Your task to perform on an android device: turn pop-ups on in chrome Image 0: 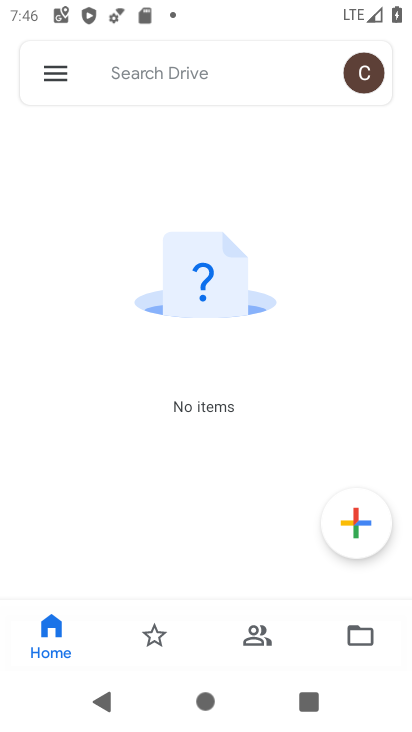
Step 0: press home button
Your task to perform on an android device: turn pop-ups on in chrome Image 1: 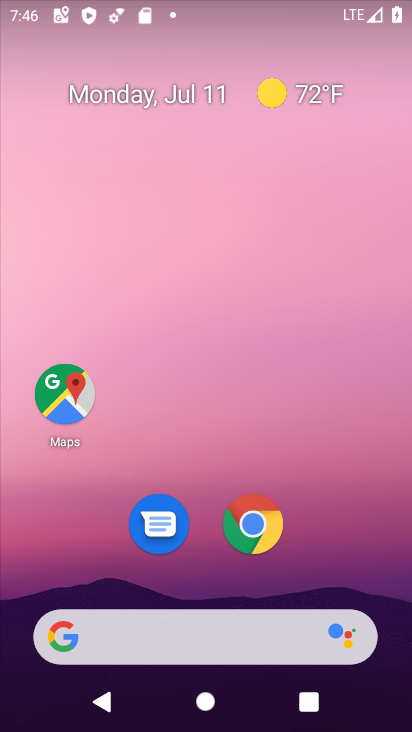
Step 1: click (265, 526)
Your task to perform on an android device: turn pop-ups on in chrome Image 2: 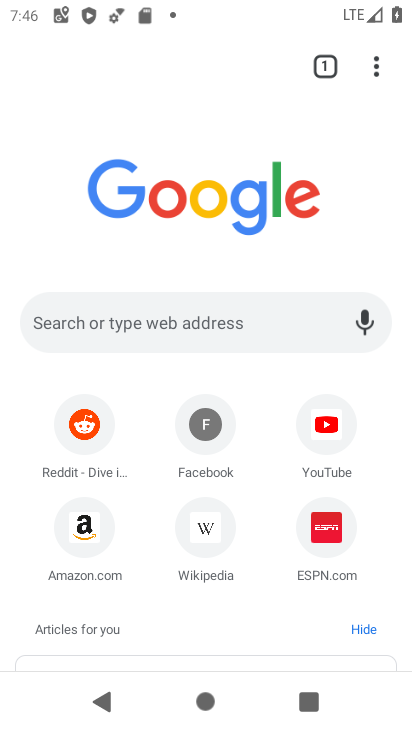
Step 2: click (375, 64)
Your task to perform on an android device: turn pop-ups on in chrome Image 3: 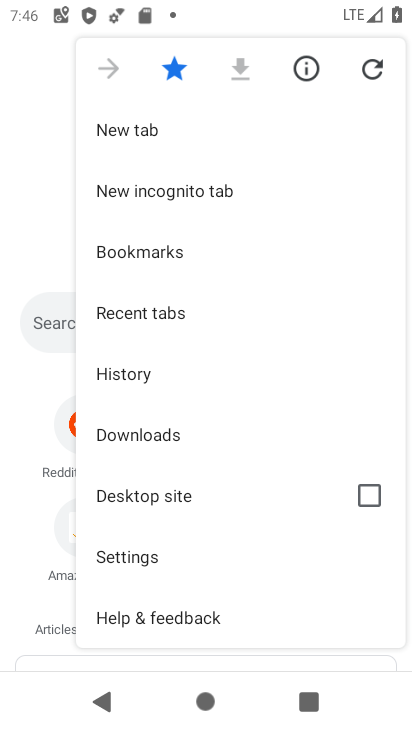
Step 3: click (143, 554)
Your task to perform on an android device: turn pop-ups on in chrome Image 4: 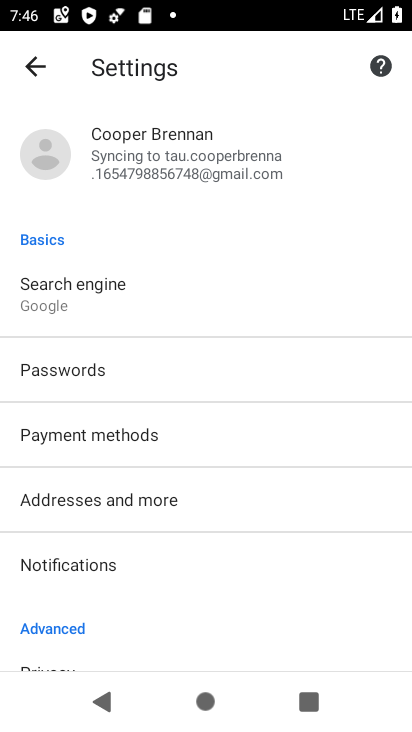
Step 4: drag from (230, 551) to (280, 224)
Your task to perform on an android device: turn pop-ups on in chrome Image 5: 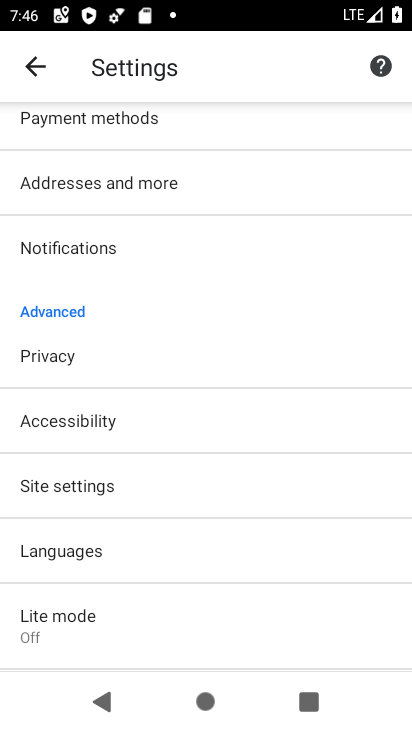
Step 5: click (89, 479)
Your task to perform on an android device: turn pop-ups on in chrome Image 6: 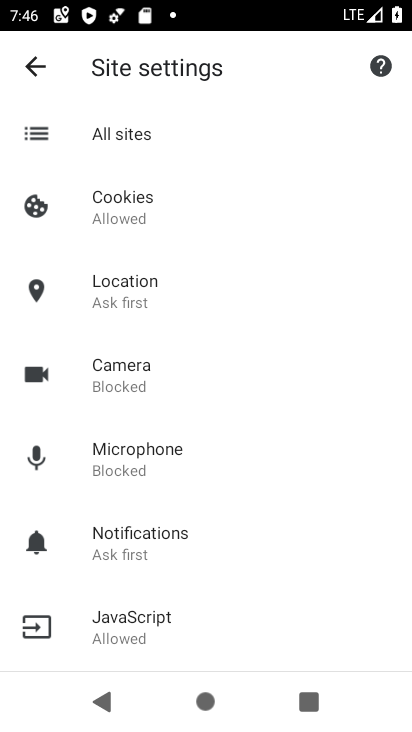
Step 6: drag from (221, 498) to (226, 209)
Your task to perform on an android device: turn pop-ups on in chrome Image 7: 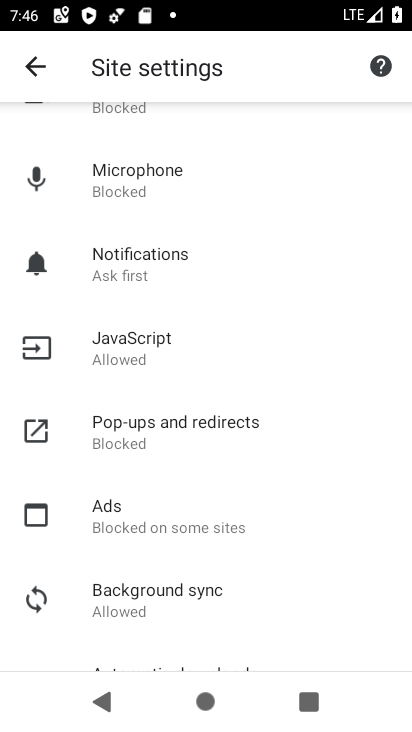
Step 7: click (173, 430)
Your task to perform on an android device: turn pop-ups on in chrome Image 8: 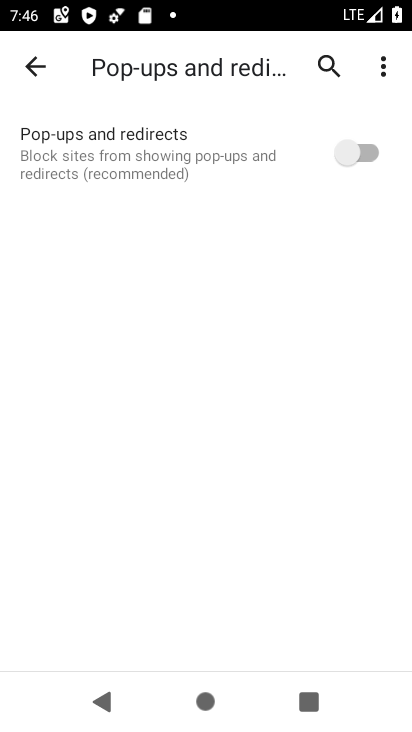
Step 8: click (359, 150)
Your task to perform on an android device: turn pop-ups on in chrome Image 9: 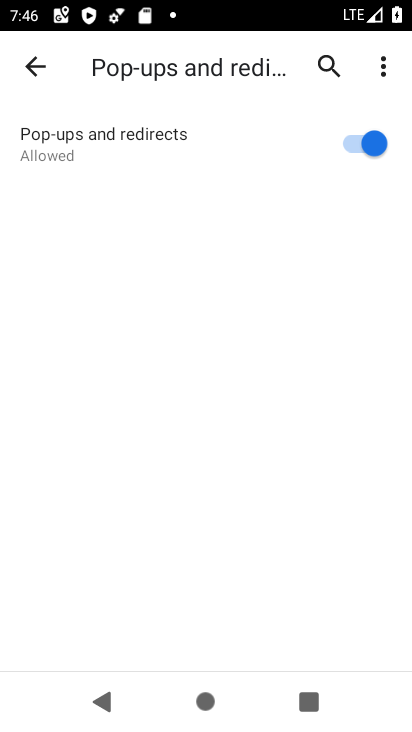
Step 9: task complete